Your task to perform on an android device: check the backup settings in the google photos Image 0: 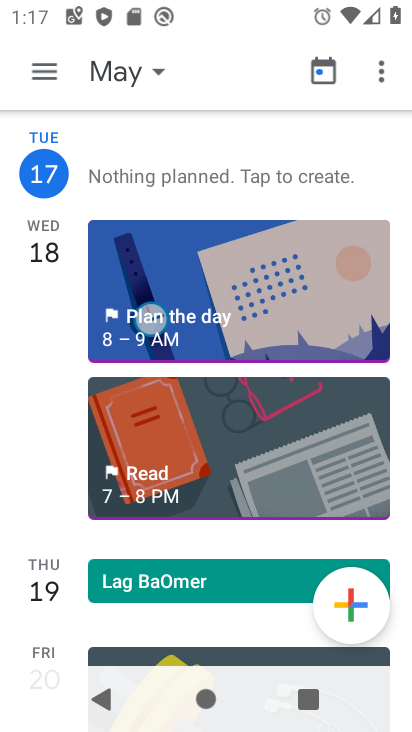
Step 0: press home button
Your task to perform on an android device: check the backup settings in the google photos Image 1: 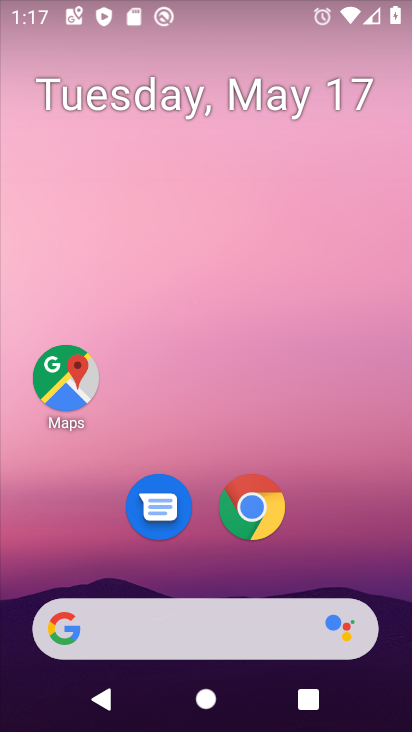
Step 1: drag from (327, 546) to (310, 189)
Your task to perform on an android device: check the backup settings in the google photos Image 2: 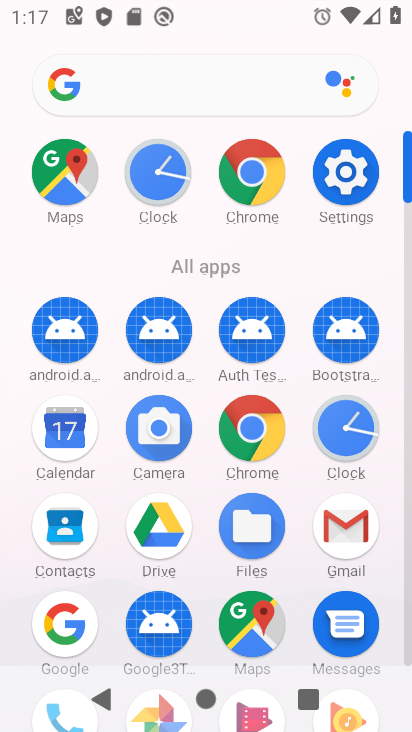
Step 2: drag from (276, 612) to (287, 323)
Your task to perform on an android device: check the backup settings in the google photos Image 3: 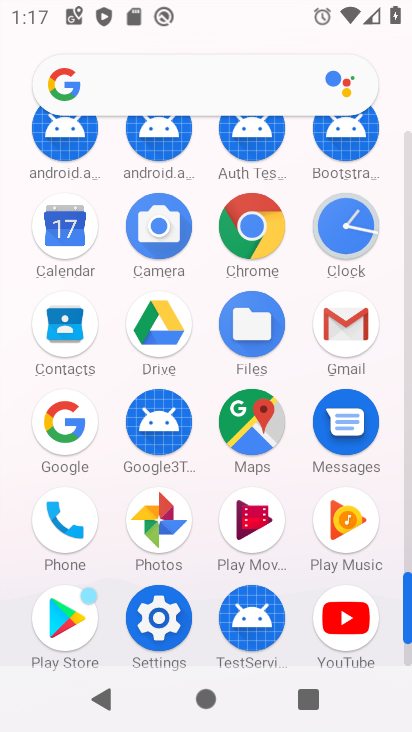
Step 3: click (148, 518)
Your task to perform on an android device: check the backup settings in the google photos Image 4: 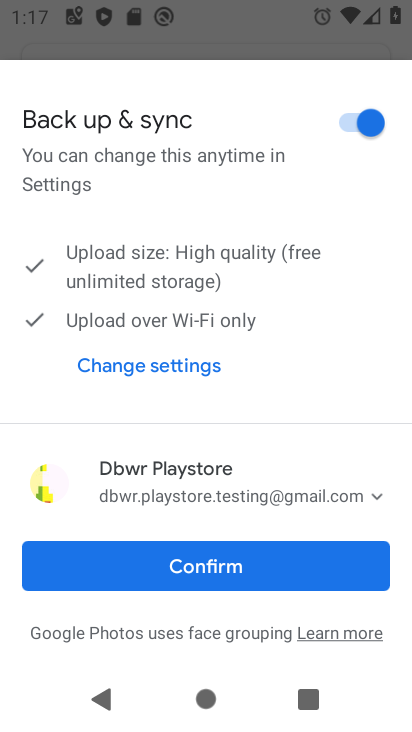
Step 4: click (246, 564)
Your task to perform on an android device: check the backup settings in the google photos Image 5: 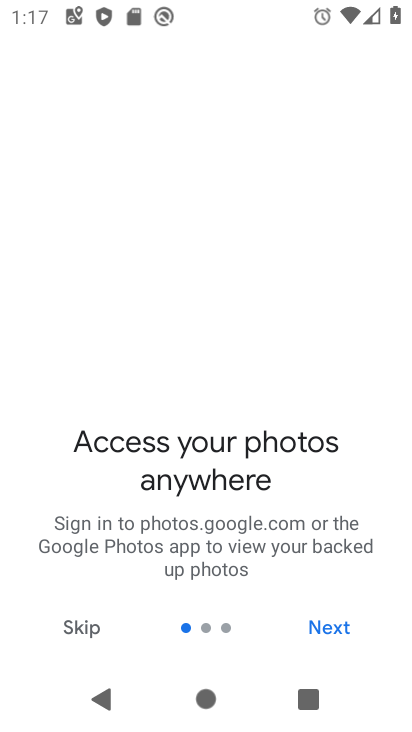
Step 5: click (311, 623)
Your task to perform on an android device: check the backup settings in the google photos Image 6: 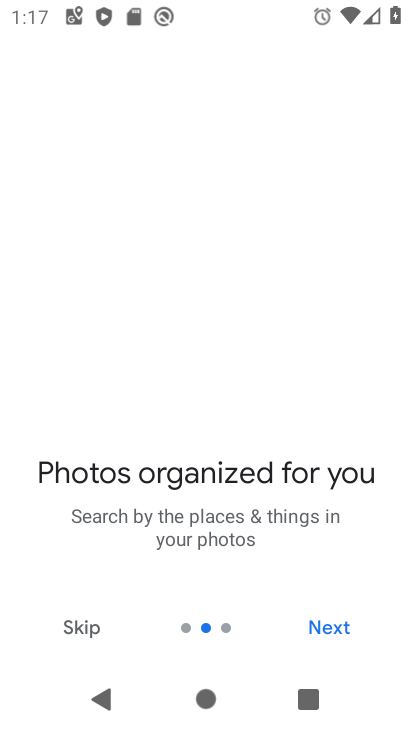
Step 6: click (322, 637)
Your task to perform on an android device: check the backup settings in the google photos Image 7: 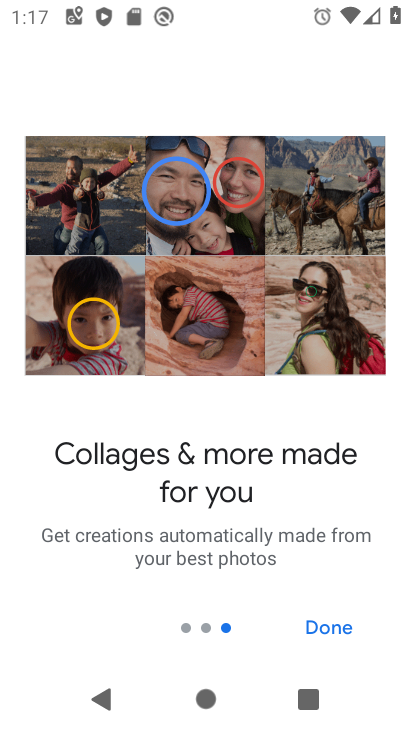
Step 7: click (324, 632)
Your task to perform on an android device: check the backup settings in the google photos Image 8: 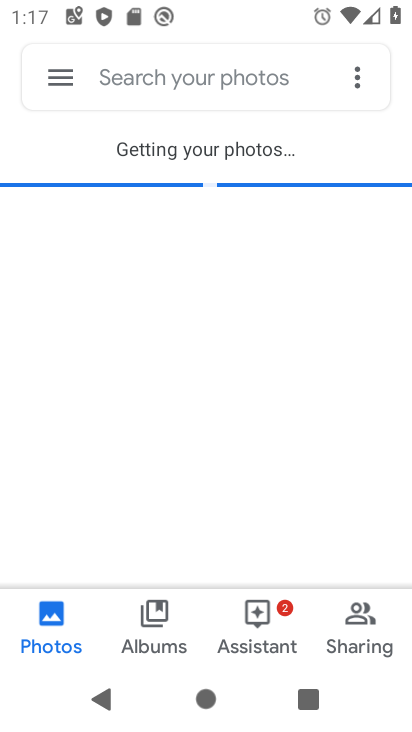
Step 8: click (64, 74)
Your task to perform on an android device: check the backup settings in the google photos Image 9: 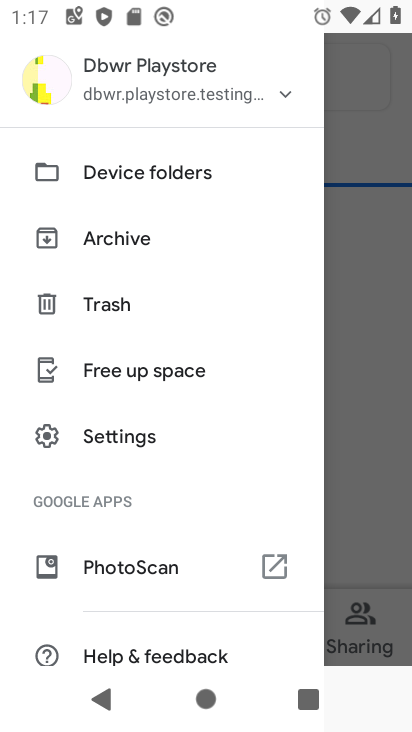
Step 9: click (115, 428)
Your task to perform on an android device: check the backup settings in the google photos Image 10: 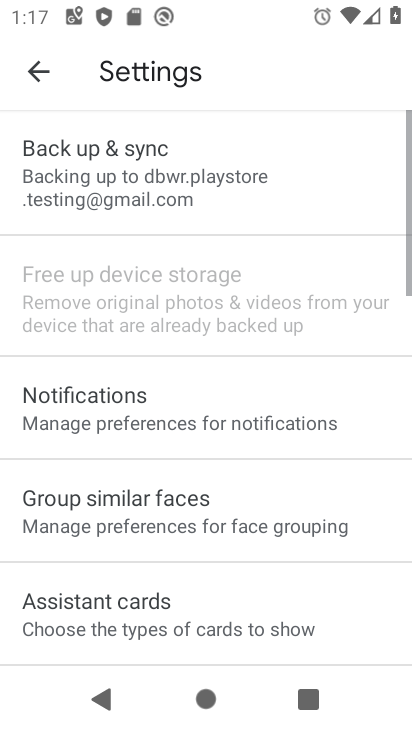
Step 10: click (136, 165)
Your task to perform on an android device: check the backup settings in the google photos Image 11: 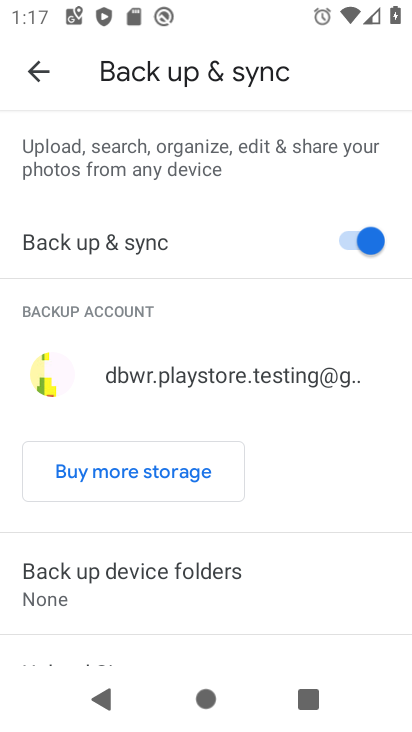
Step 11: task complete